Your task to perform on an android device: Search for sushi restaurants on Maps Image 0: 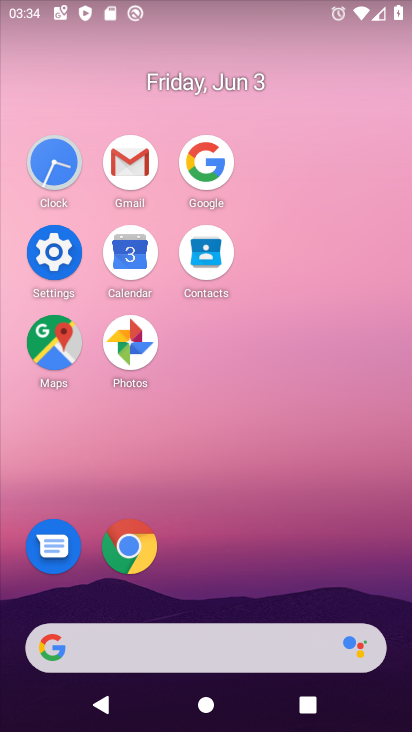
Step 0: click (66, 345)
Your task to perform on an android device: Search for sushi restaurants on Maps Image 1: 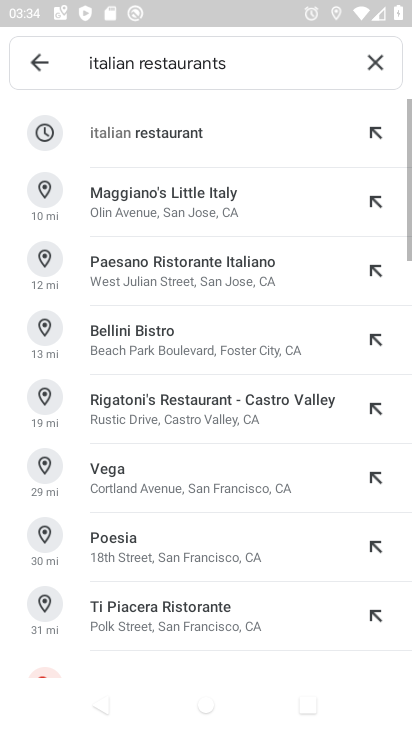
Step 1: click (363, 64)
Your task to perform on an android device: Search for sushi restaurants on Maps Image 2: 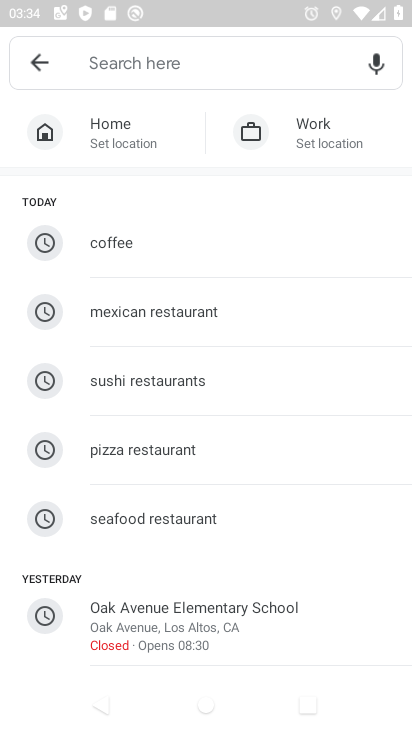
Step 2: click (177, 351)
Your task to perform on an android device: Search for sushi restaurants on Maps Image 3: 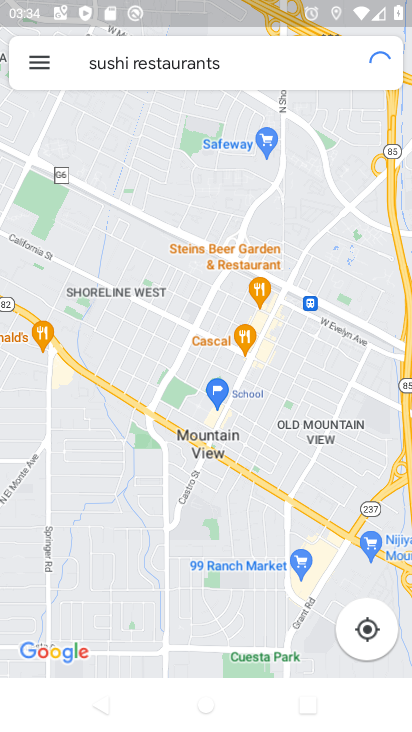
Step 3: click (247, 368)
Your task to perform on an android device: Search for sushi restaurants on Maps Image 4: 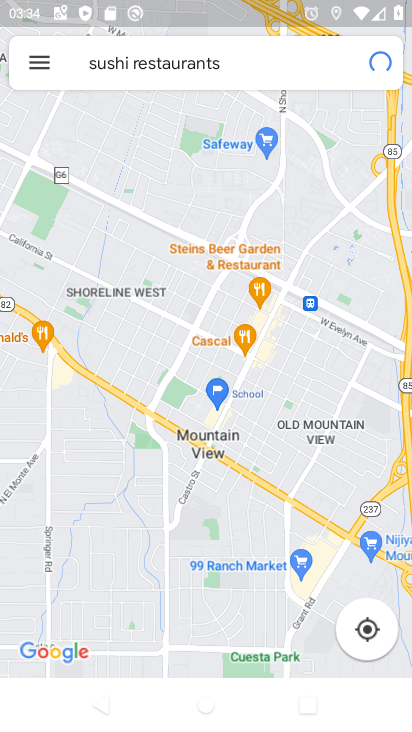
Step 4: task complete